Your task to perform on an android device: delete the emails in spam in the gmail app Image 0: 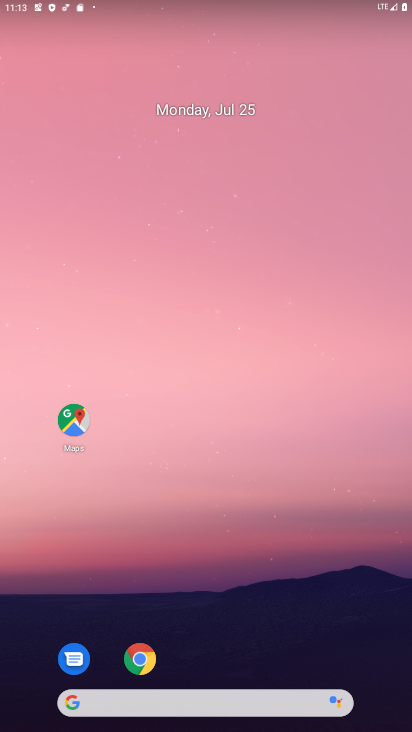
Step 0: drag from (240, 674) to (232, 87)
Your task to perform on an android device: delete the emails in spam in the gmail app Image 1: 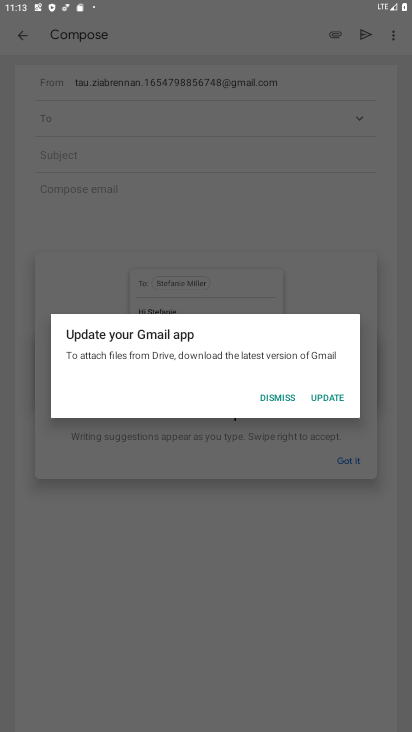
Step 1: press home button
Your task to perform on an android device: delete the emails in spam in the gmail app Image 2: 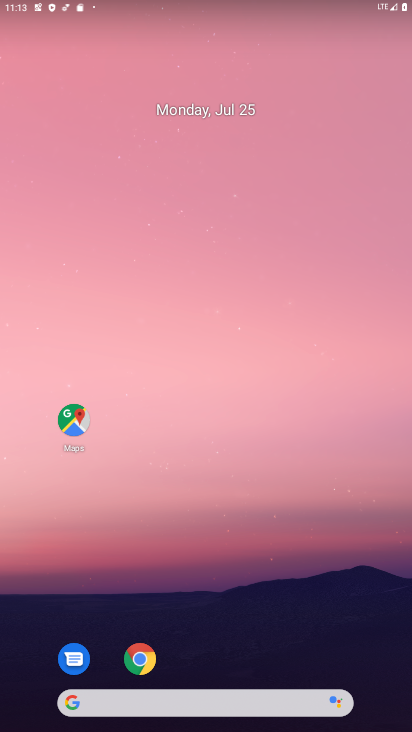
Step 2: drag from (391, 661) to (363, 144)
Your task to perform on an android device: delete the emails in spam in the gmail app Image 3: 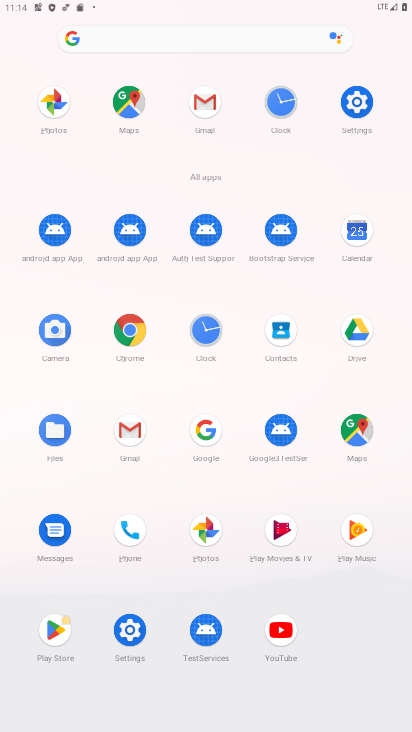
Step 3: click (205, 108)
Your task to perform on an android device: delete the emails in spam in the gmail app Image 4: 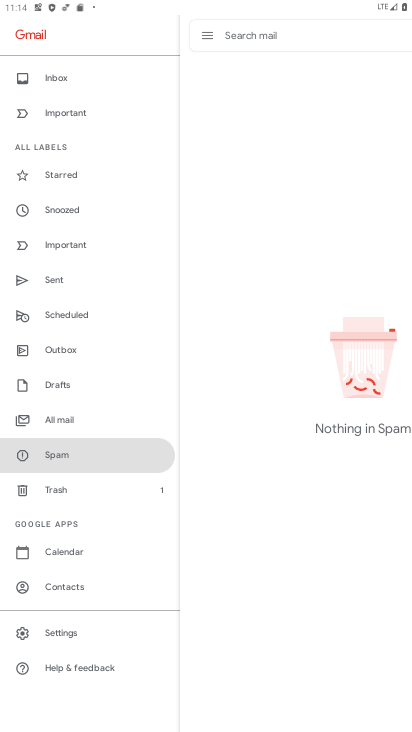
Step 4: task complete